Your task to perform on an android device: turn off improve location accuracy Image 0: 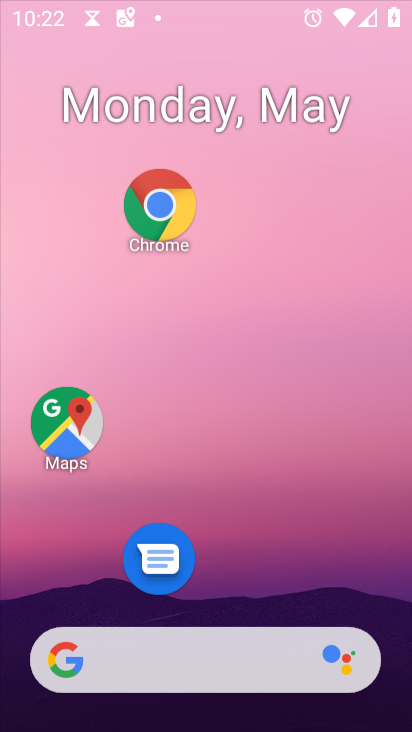
Step 0: drag from (266, 372) to (266, 143)
Your task to perform on an android device: turn off improve location accuracy Image 1: 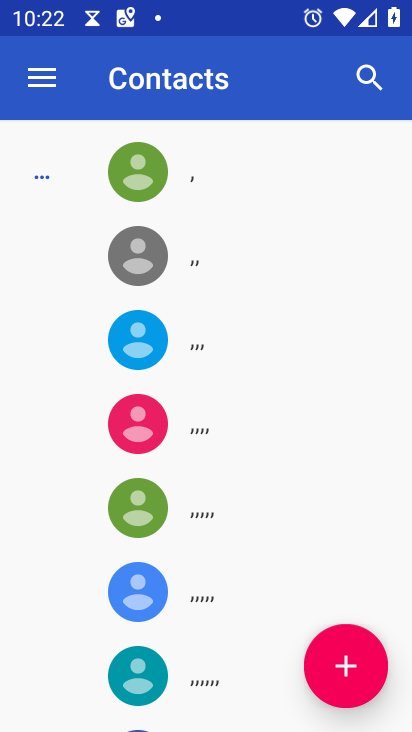
Step 1: press back button
Your task to perform on an android device: turn off improve location accuracy Image 2: 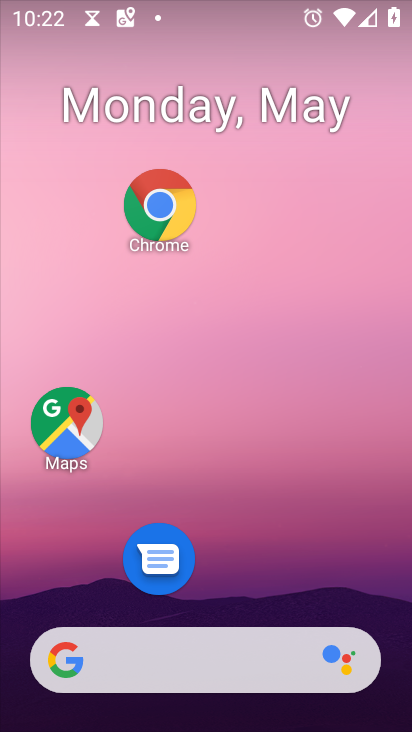
Step 2: drag from (231, 633) to (246, 98)
Your task to perform on an android device: turn off improve location accuracy Image 3: 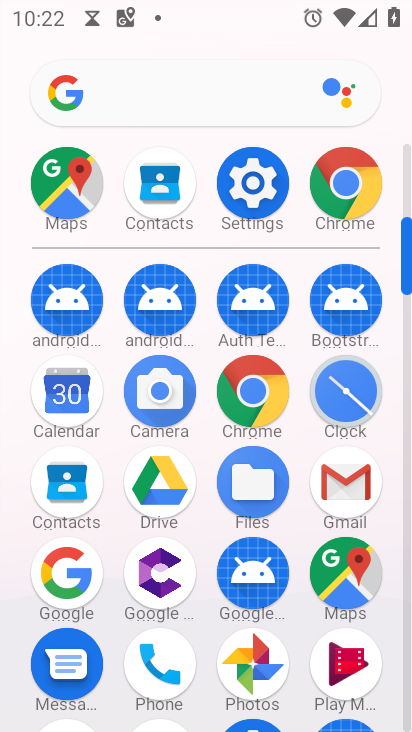
Step 3: click (234, 188)
Your task to perform on an android device: turn off improve location accuracy Image 4: 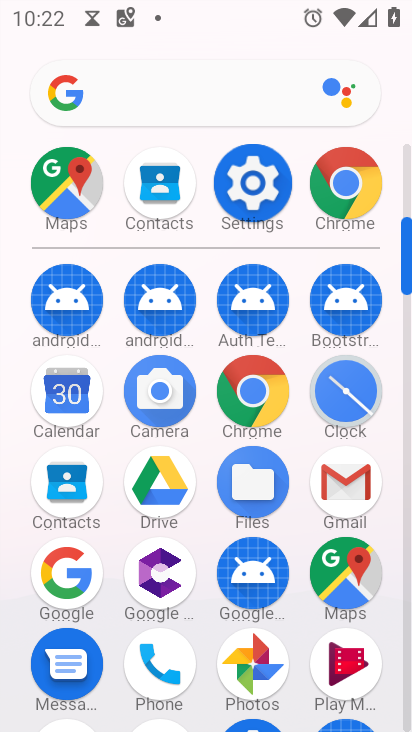
Step 4: click (234, 188)
Your task to perform on an android device: turn off improve location accuracy Image 5: 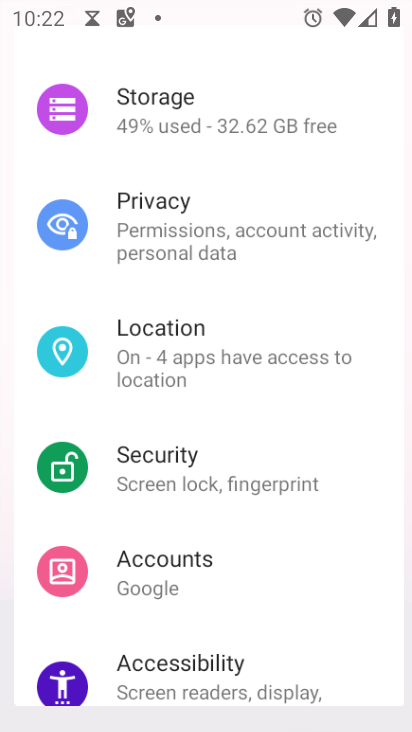
Step 5: click (238, 188)
Your task to perform on an android device: turn off improve location accuracy Image 6: 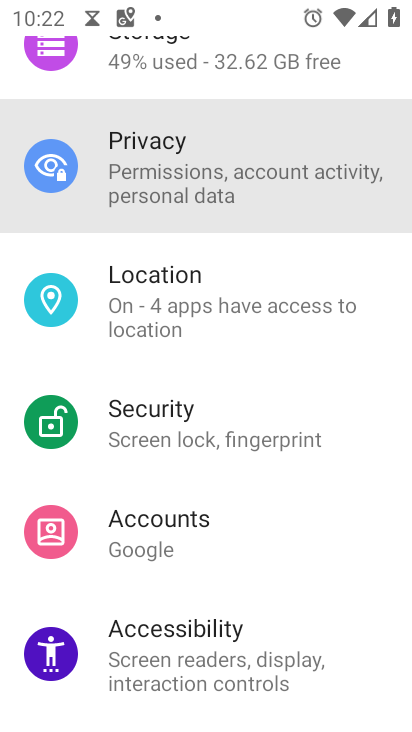
Step 6: click (239, 188)
Your task to perform on an android device: turn off improve location accuracy Image 7: 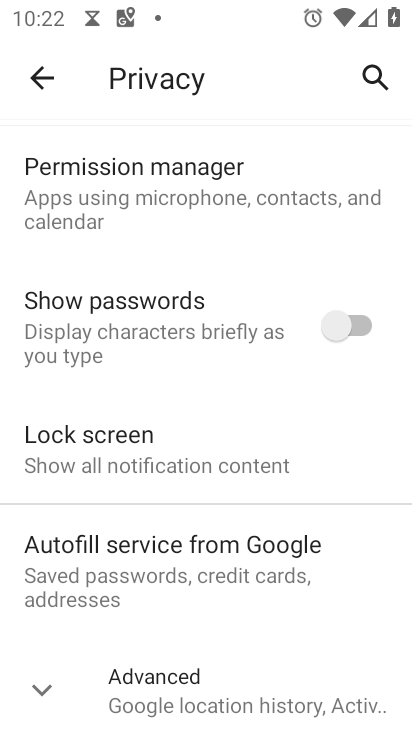
Step 7: click (36, 67)
Your task to perform on an android device: turn off improve location accuracy Image 8: 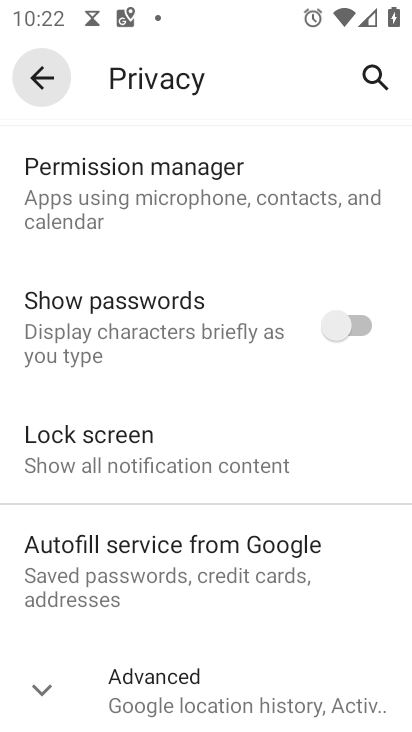
Step 8: click (37, 67)
Your task to perform on an android device: turn off improve location accuracy Image 9: 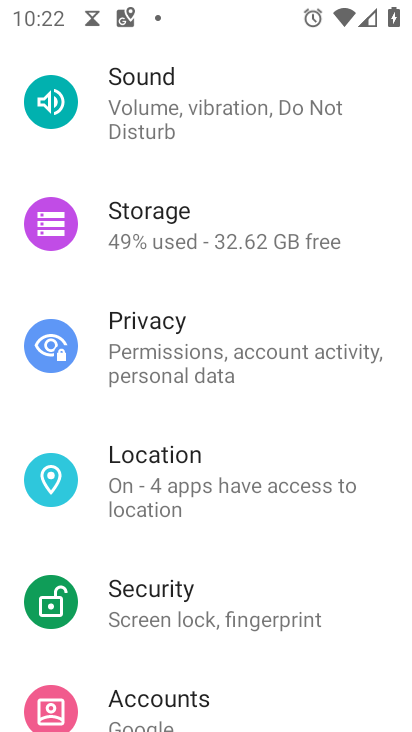
Step 9: click (156, 474)
Your task to perform on an android device: turn off improve location accuracy Image 10: 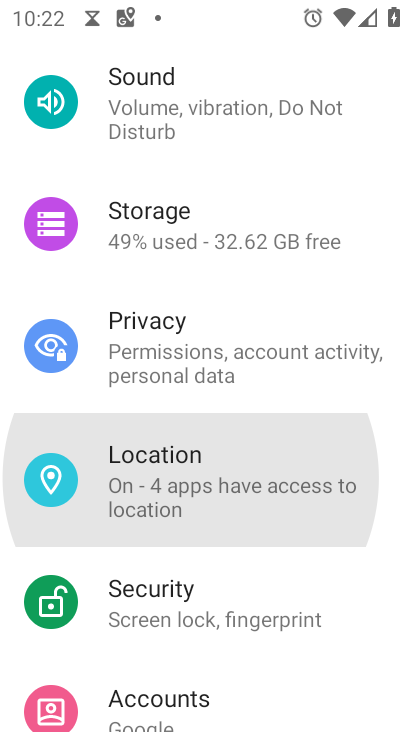
Step 10: click (158, 473)
Your task to perform on an android device: turn off improve location accuracy Image 11: 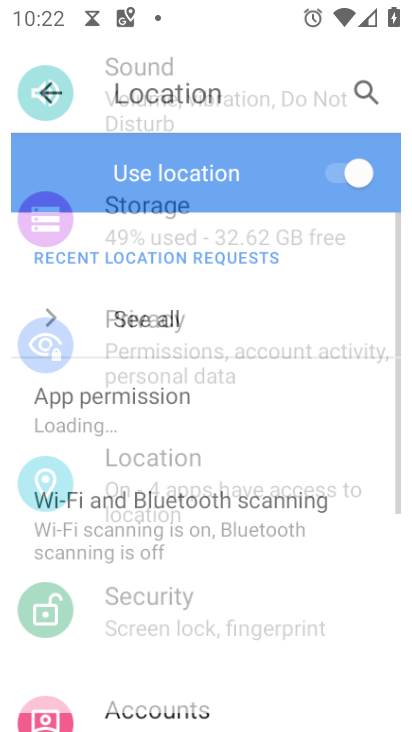
Step 11: click (158, 473)
Your task to perform on an android device: turn off improve location accuracy Image 12: 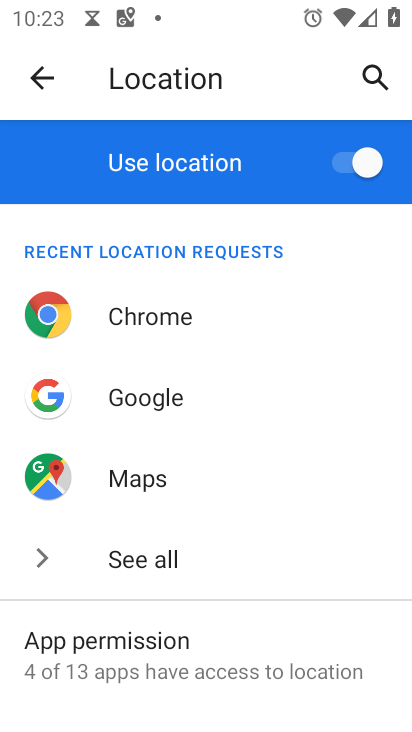
Step 12: drag from (209, 574) to (192, 195)
Your task to perform on an android device: turn off improve location accuracy Image 13: 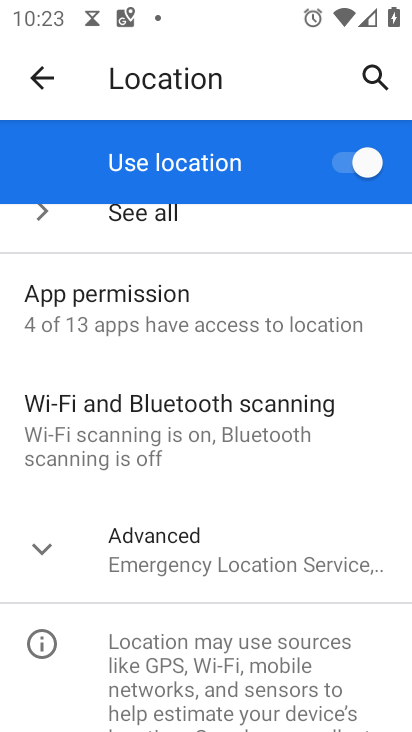
Step 13: click (185, 560)
Your task to perform on an android device: turn off improve location accuracy Image 14: 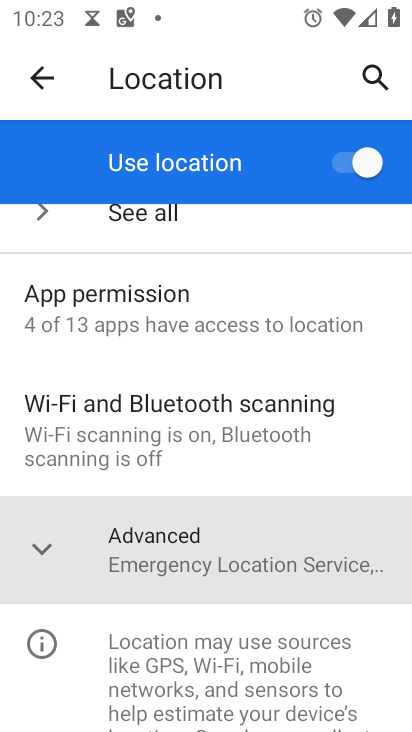
Step 14: click (188, 561)
Your task to perform on an android device: turn off improve location accuracy Image 15: 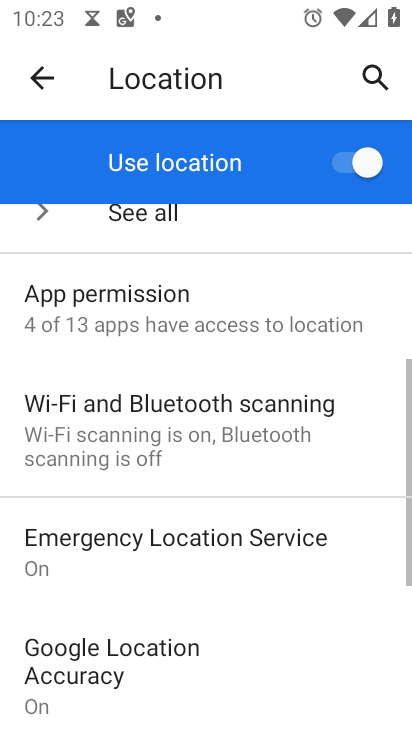
Step 15: drag from (199, 587) to (184, 192)
Your task to perform on an android device: turn off improve location accuracy Image 16: 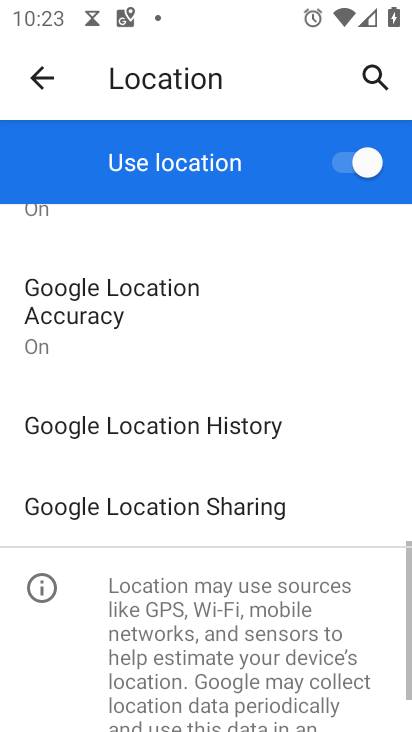
Step 16: drag from (229, 459) to (234, 144)
Your task to perform on an android device: turn off improve location accuracy Image 17: 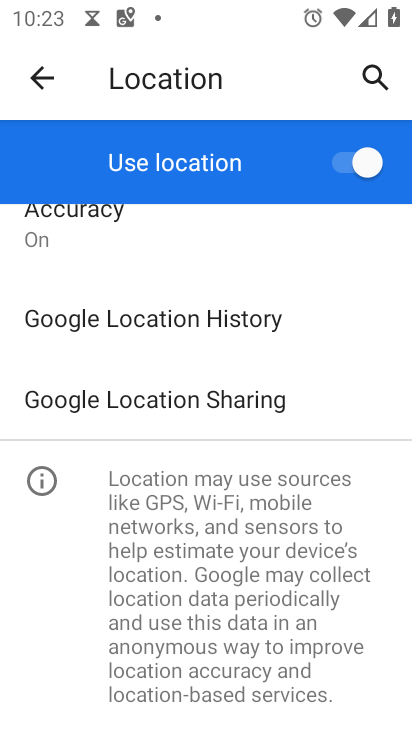
Step 17: drag from (113, 261) to (160, 429)
Your task to perform on an android device: turn off improve location accuracy Image 18: 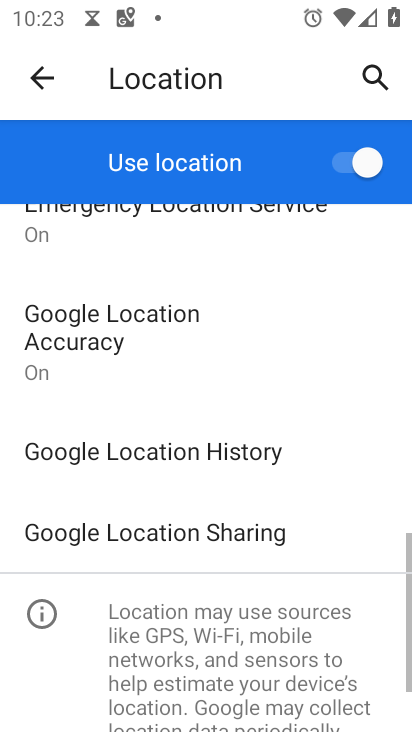
Step 18: drag from (159, 295) to (191, 542)
Your task to perform on an android device: turn off improve location accuracy Image 19: 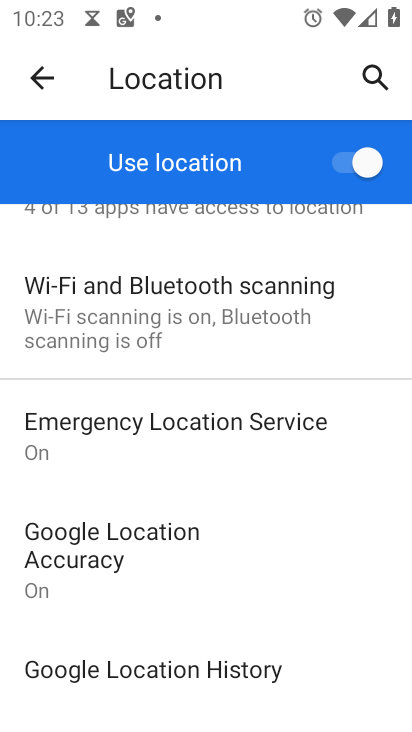
Step 19: click (57, 355)
Your task to perform on an android device: turn off improve location accuracy Image 20: 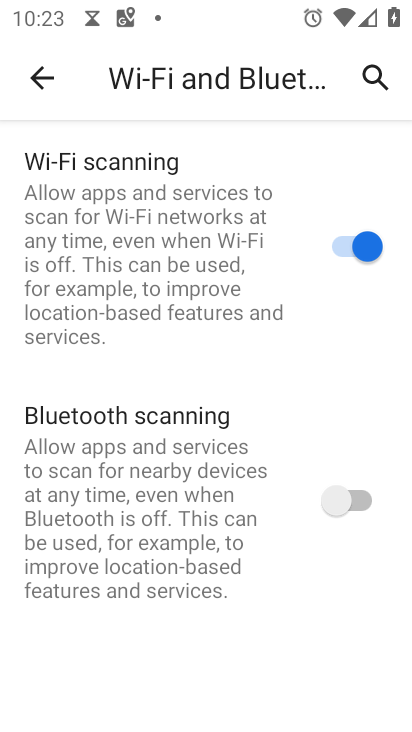
Step 20: click (76, 551)
Your task to perform on an android device: turn off improve location accuracy Image 21: 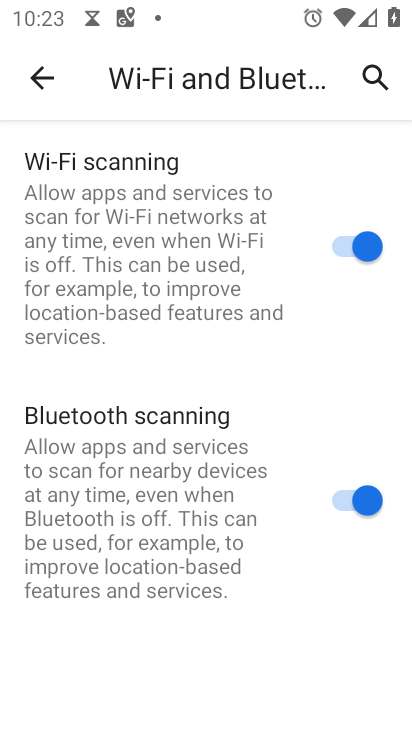
Step 21: click (42, 84)
Your task to perform on an android device: turn off improve location accuracy Image 22: 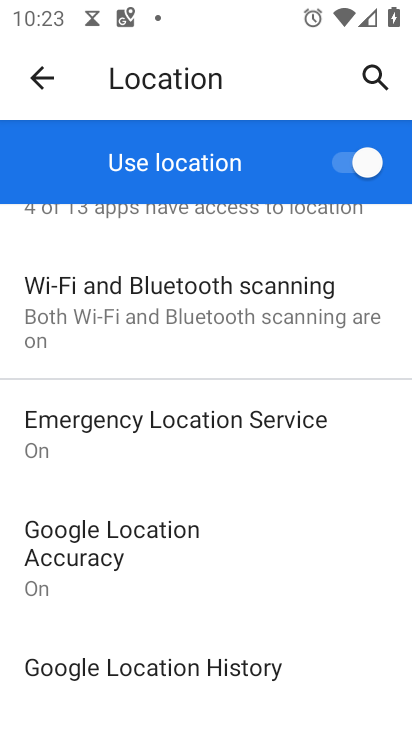
Step 22: click (87, 542)
Your task to perform on an android device: turn off improve location accuracy Image 23: 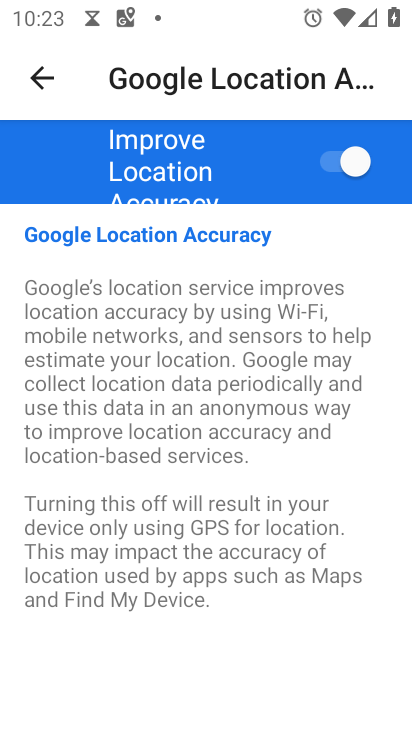
Step 23: click (350, 162)
Your task to perform on an android device: turn off improve location accuracy Image 24: 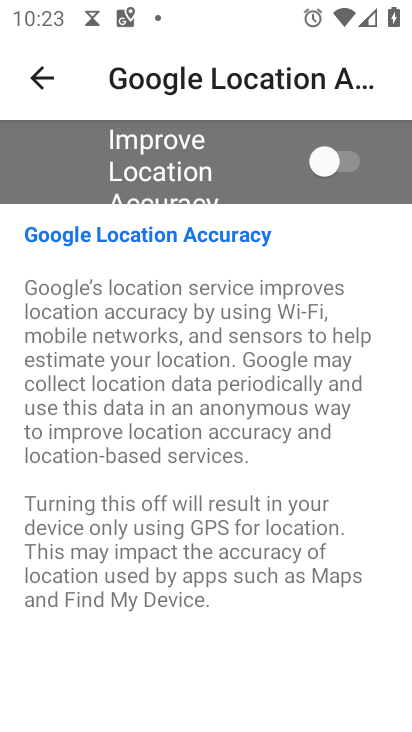
Step 24: task complete